Your task to perform on an android device: read, delete, or share a saved page in the chrome app Image 0: 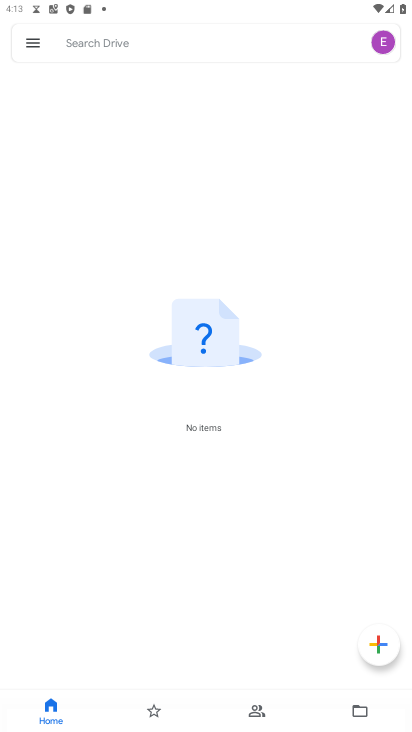
Step 0: press home button
Your task to perform on an android device: read, delete, or share a saved page in the chrome app Image 1: 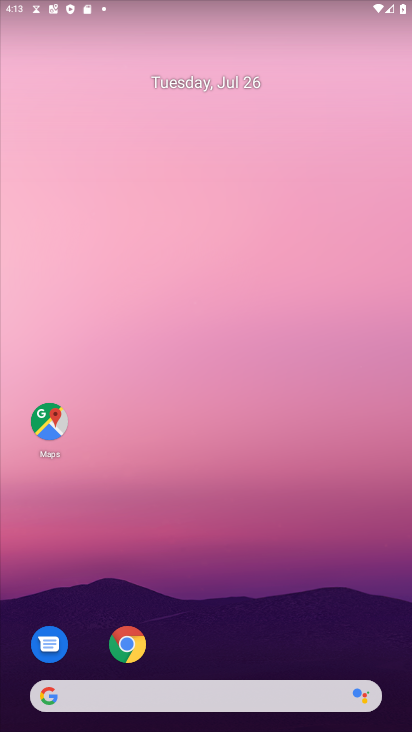
Step 1: click (129, 647)
Your task to perform on an android device: read, delete, or share a saved page in the chrome app Image 2: 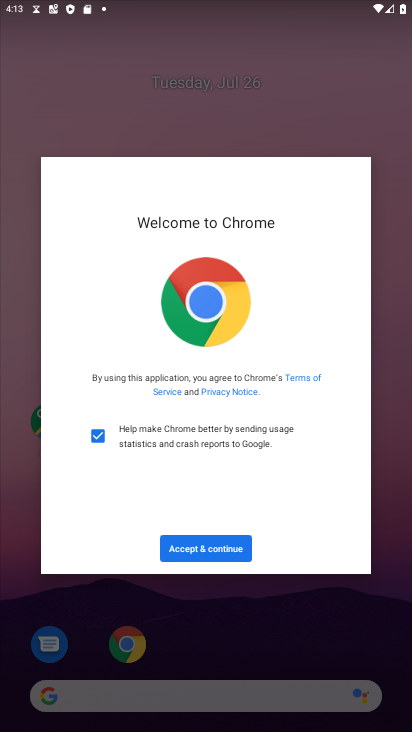
Step 2: click (180, 542)
Your task to perform on an android device: read, delete, or share a saved page in the chrome app Image 3: 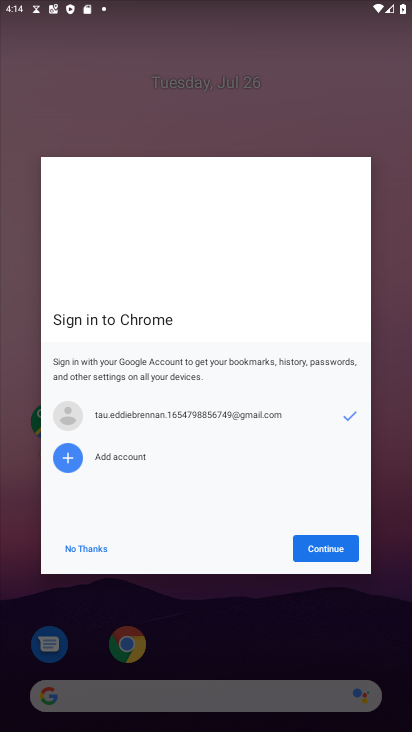
Step 3: click (326, 556)
Your task to perform on an android device: read, delete, or share a saved page in the chrome app Image 4: 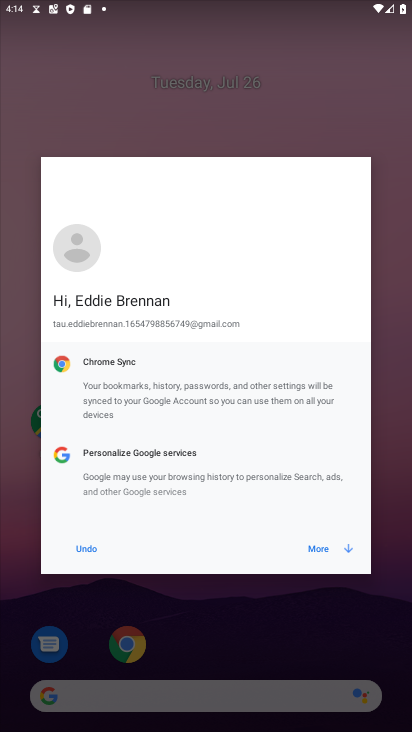
Step 4: click (326, 550)
Your task to perform on an android device: read, delete, or share a saved page in the chrome app Image 5: 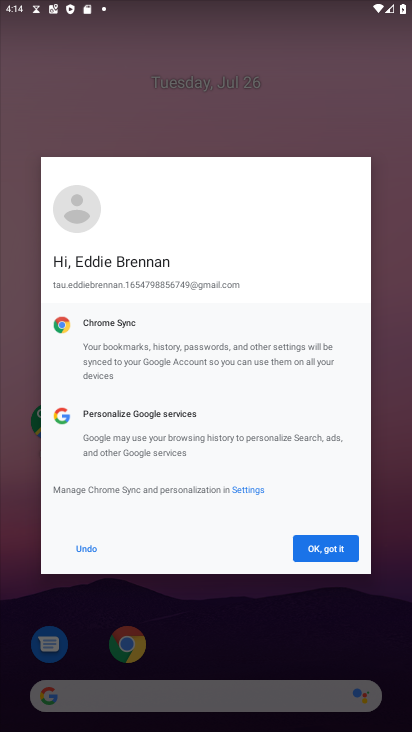
Step 5: click (326, 550)
Your task to perform on an android device: read, delete, or share a saved page in the chrome app Image 6: 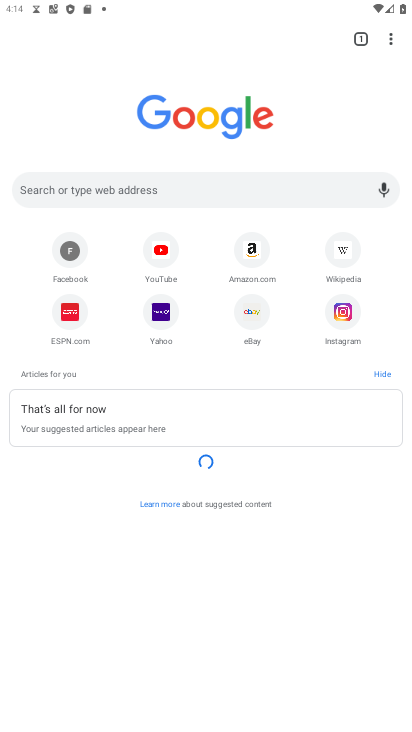
Step 6: click (393, 34)
Your task to perform on an android device: read, delete, or share a saved page in the chrome app Image 7: 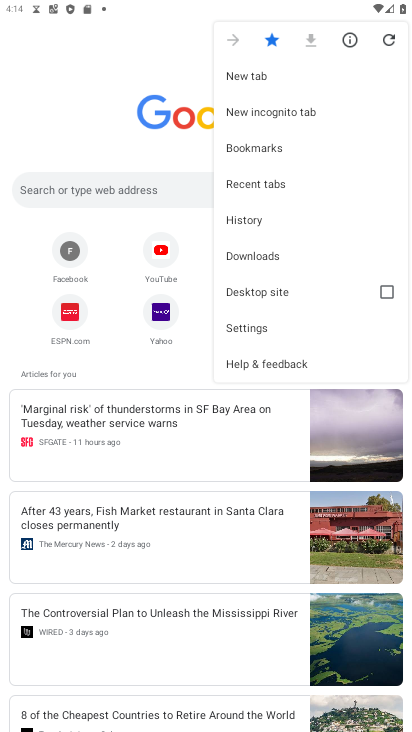
Step 7: click (276, 256)
Your task to perform on an android device: read, delete, or share a saved page in the chrome app Image 8: 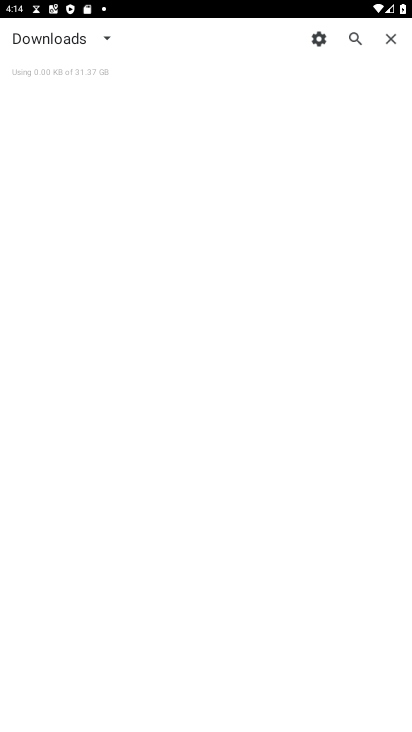
Step 8: click (101, 37)
Your task to perform on an android device: read, delete, or share a saved page in the chrome app Image 9: 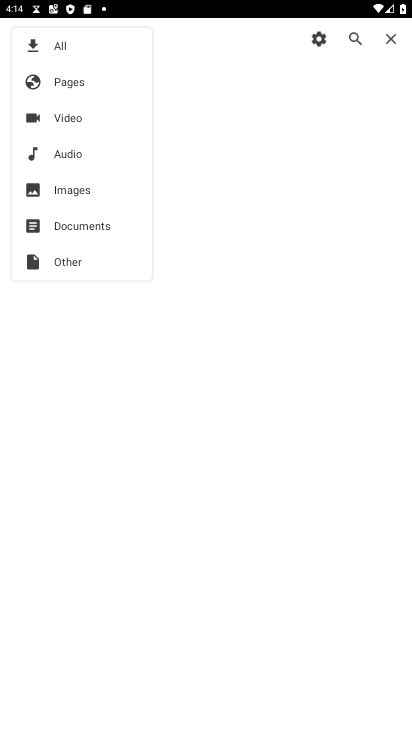
Step 9: click (90, 83)
Your task to perform on an android device: read, delete, or share a saved page in the chrome app Image 10: 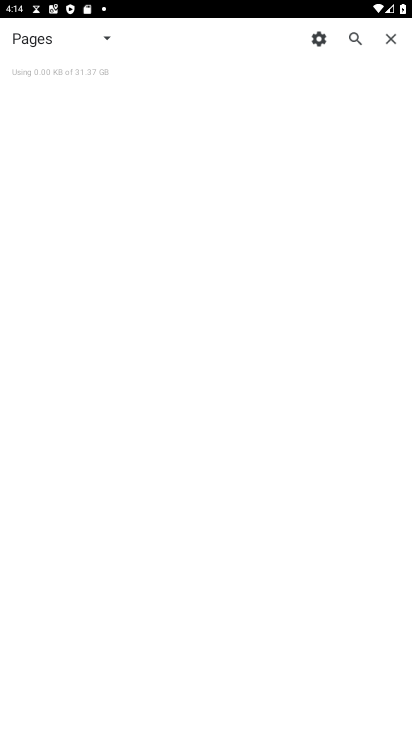
Step 10: task complete